Your task to perform on an android device: Go to wifi settings Image 0: 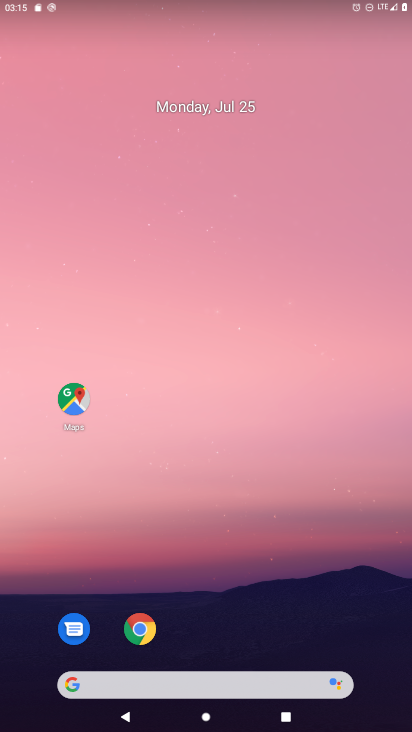
Step 0: drag from (198, 11) to (79, 438)
Your task to perform on an android device: Go to wifi settings Image 1: 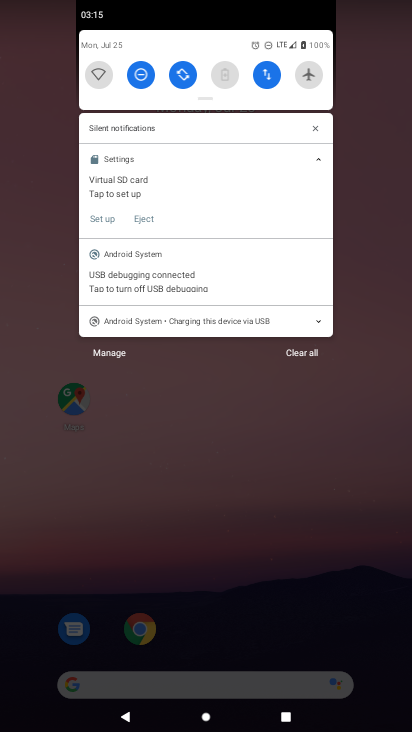
Step 1: click (97, 72)
Your task to perform on an android device: Go to wifi settings Image 2: 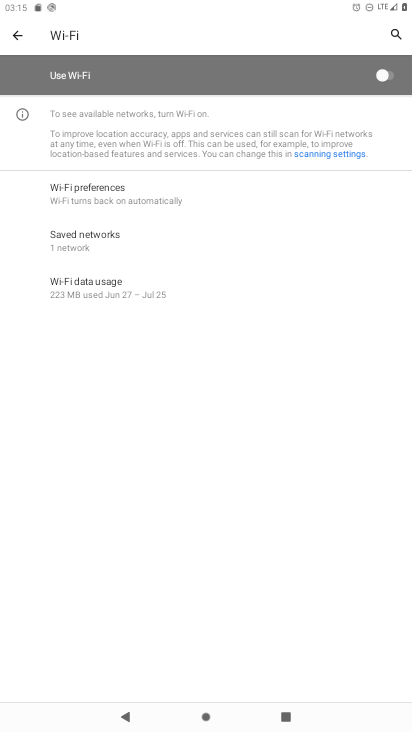
Step 2: task complete